Your task to perform on an android device: What's on my calendar today? Image 0: 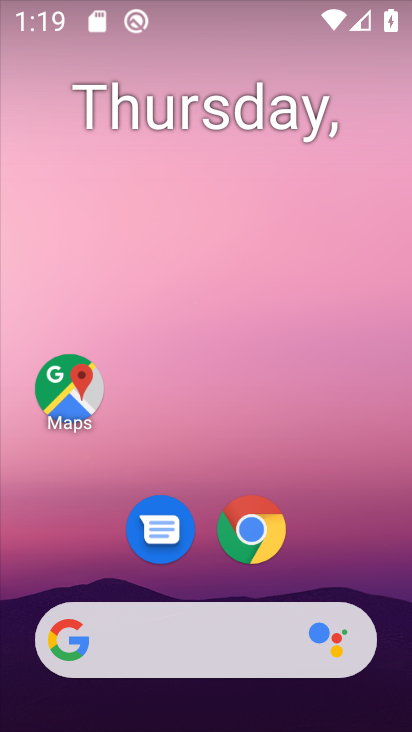
Step 0: drag from (336, 561) to (357, 118)
Your task to perform on an android device: What's on my calendar today? Image 1: 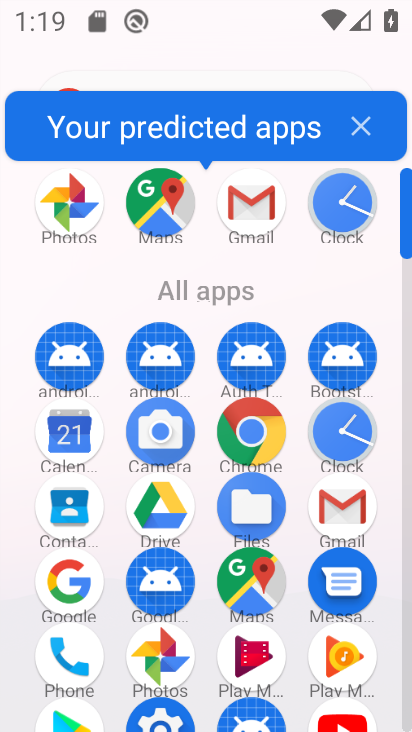
Step 1: click (69, 511)
Your task to perform on an android device: What's on my calendar today? Image 2: 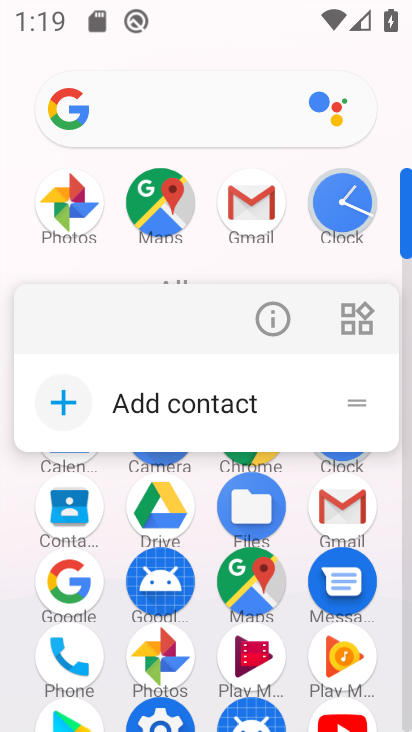
Step 2: click (69, 511)
Your task to perform on an android device: What's on my calendar today? Image 3: 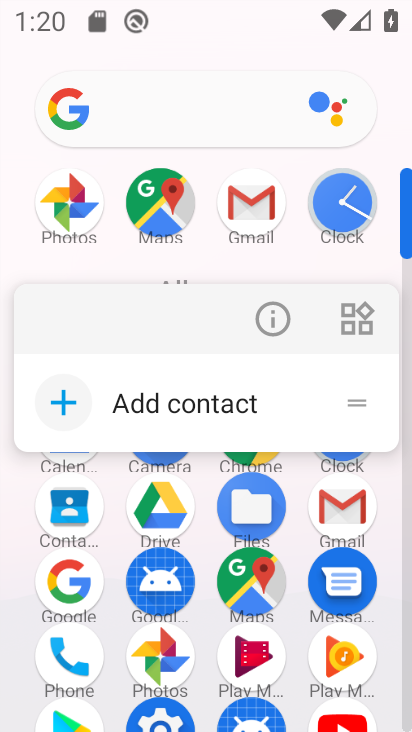
Step 3: click (387, 132)
Your task to perform on an android device: What's on my calendar today? Image 4: 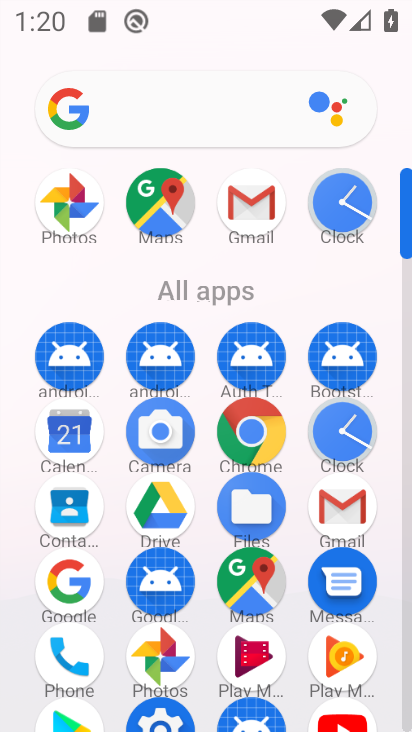
Step 4: click (52, 436)
Your task to perform on an android device: What's on my calendar today? Image 5: 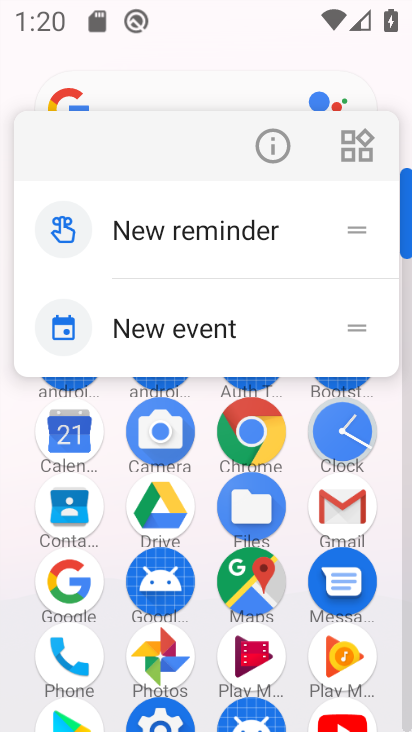
Step 5: click (68, 436)
Your task to perform on an android device: What's on my calendar today? Image 6: 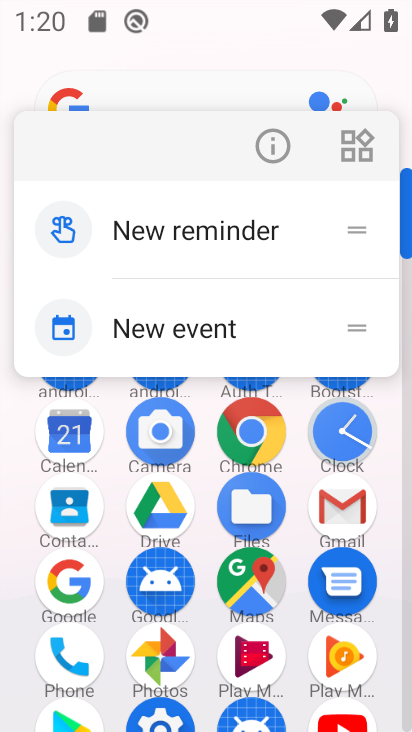
Step 6: click (68, 436)
Your task to perform on an android device: What's on my calendar today? Image 7: 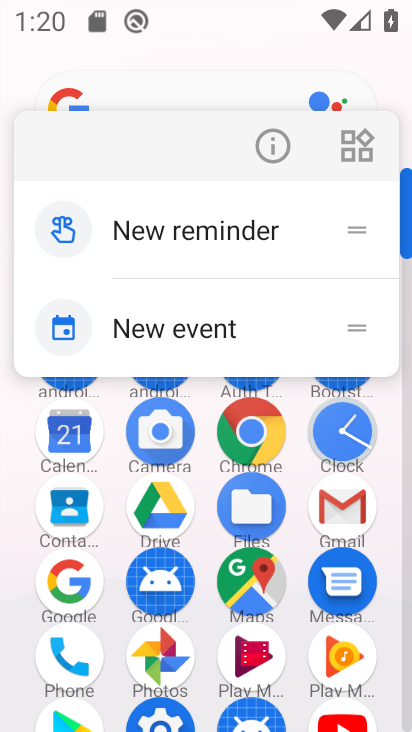
Step 7: click (99, 476)
Your task to perform on an android device: What's on my calendar today? Image 8: 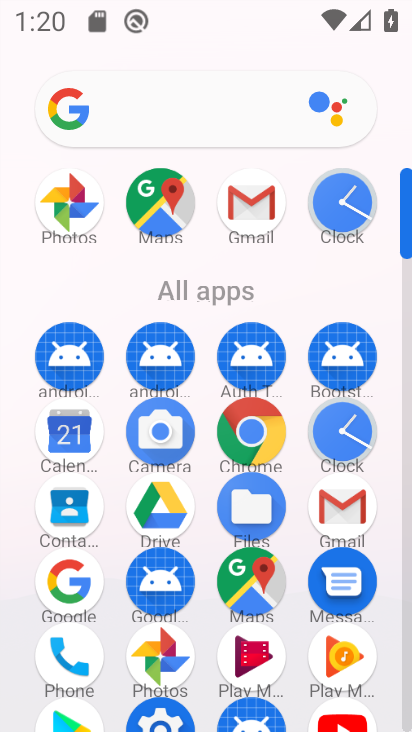
Step 8: click (70, 439)
Your task to perform on an android device: What's on my calendar today? Image 9: 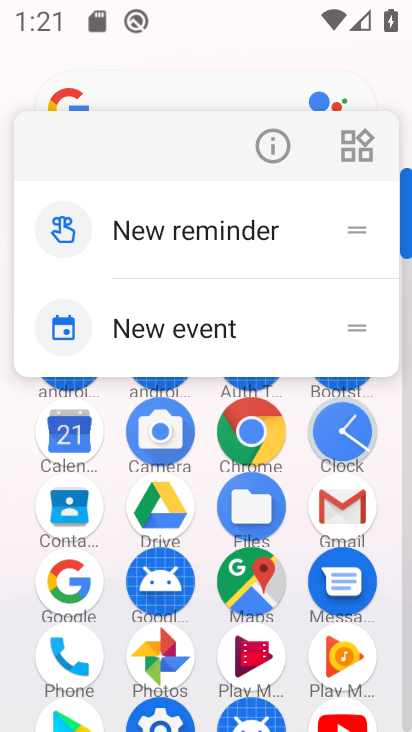
Step 9: click (51, 440)
Your task to perform on an android device: What's on my calendar today? Image 10: 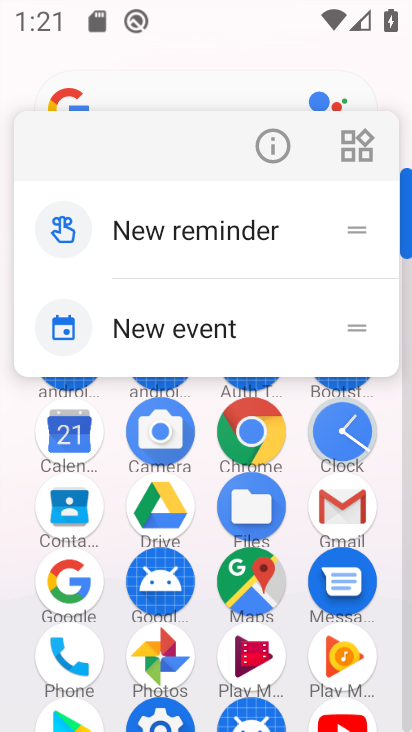
Step 10: click (94, 480)
Your task to perform on an android device: What's on my calendar today? Image 11: 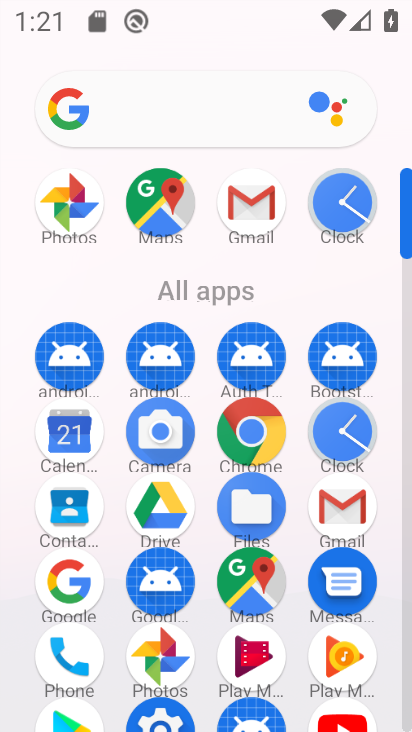
Step 11: click (74, 438)
Your task to perform on an android device: What's on my calendar today? Image 12: 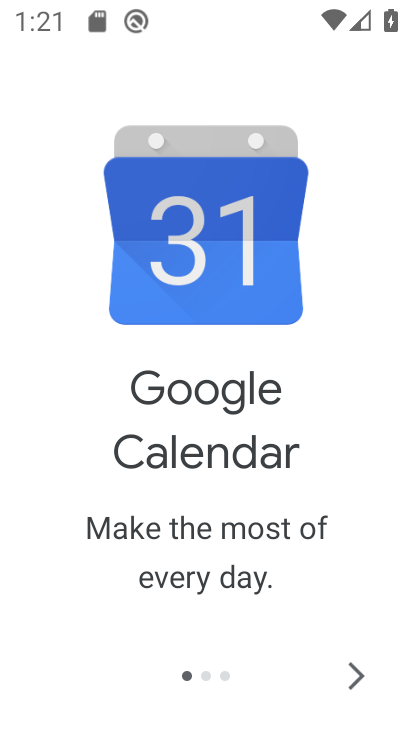
Step 12: click (353, 667)
Your task to perform on an android device: What's on my calendar today? Image 13: 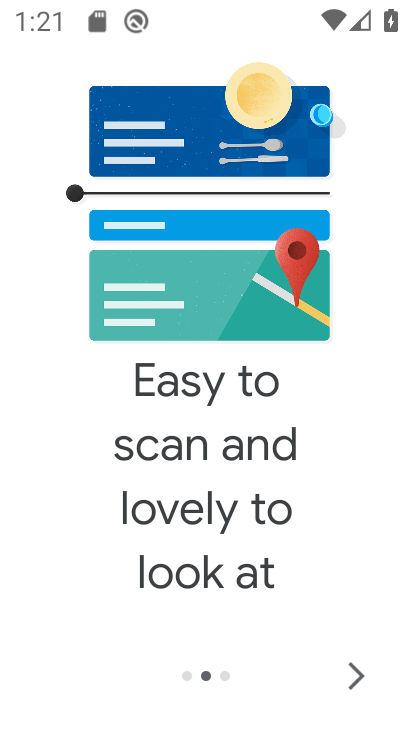
Step 13: click (353, 665)
Your task to perform on an android device: What's on my calendar today? Image 14: 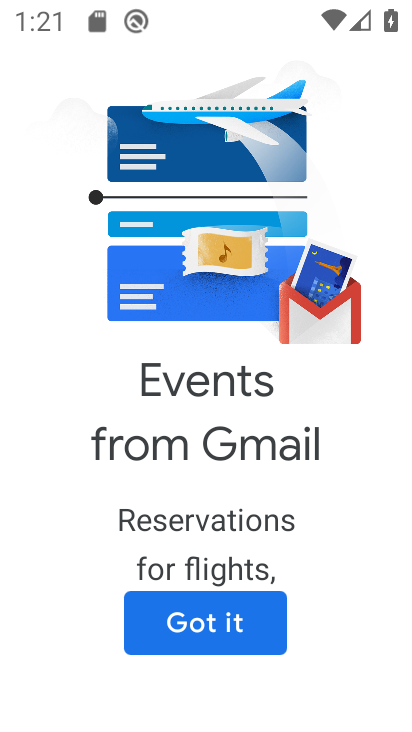
Step 14: click (215, 619)
Your task to perform on an android device: What's on my calendar today? Image 15: 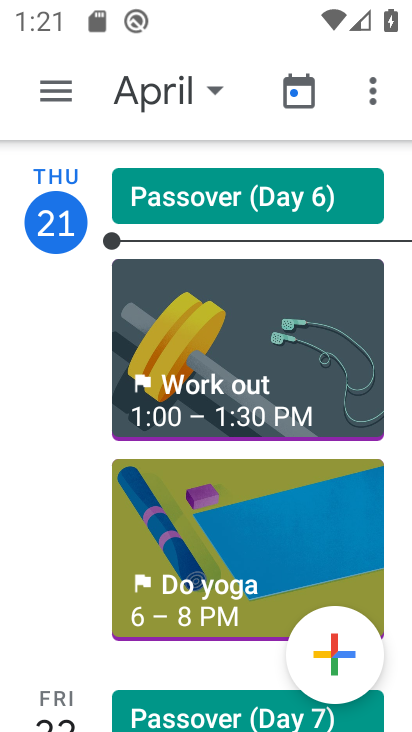
Step 15: task complete